Your task to perform on an android device: turn on the 12-hour format for clock Image 0: 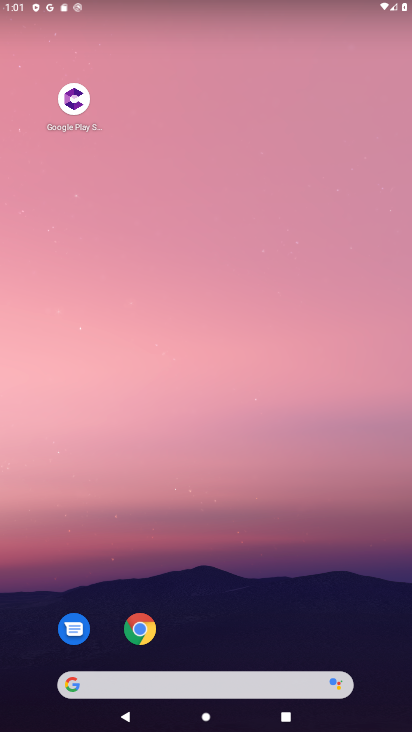
Step 0: drag from (253, 674) to (209, 192)
Your task to perform on an android device: turn on the 12-hour format for clock Image 1: 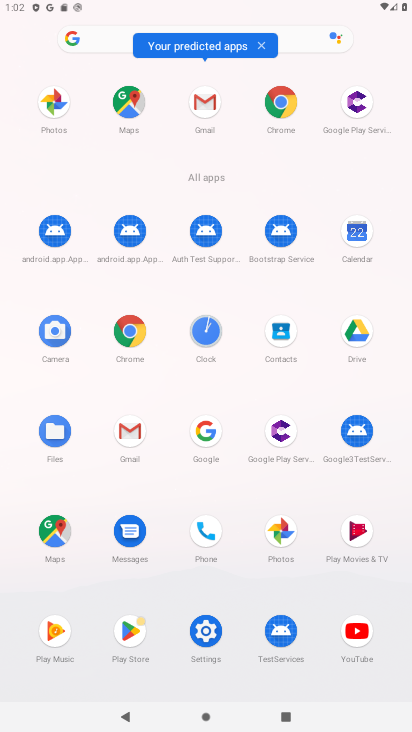
Step 1: click (202, 335)
Your task to perform on an android device: turn on the 12-hour format for clock Image 2: 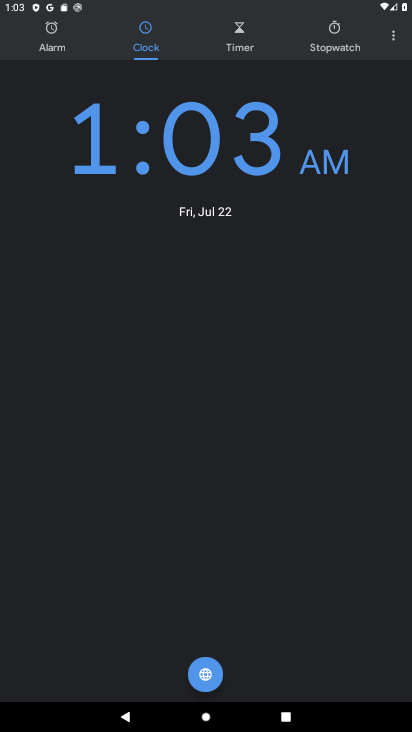
Step 2: click (397, 33)
Your task to perform on an android device: turn on the 12-hour format for clock Image 3: 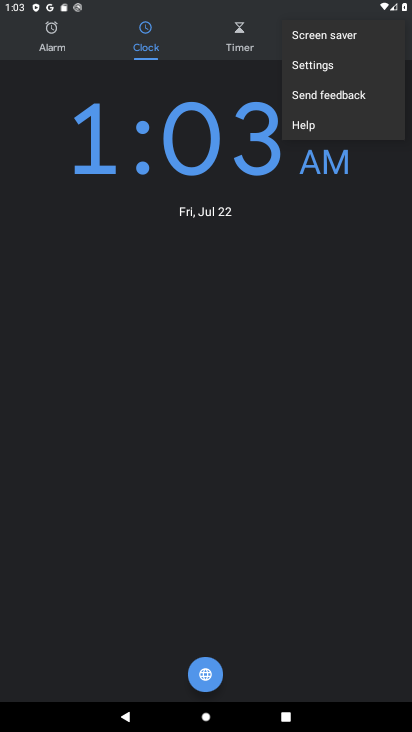
Step 3: click (323, 68)
Your task to perform on an android device: turn on the 12-hour format for clock Image 4: 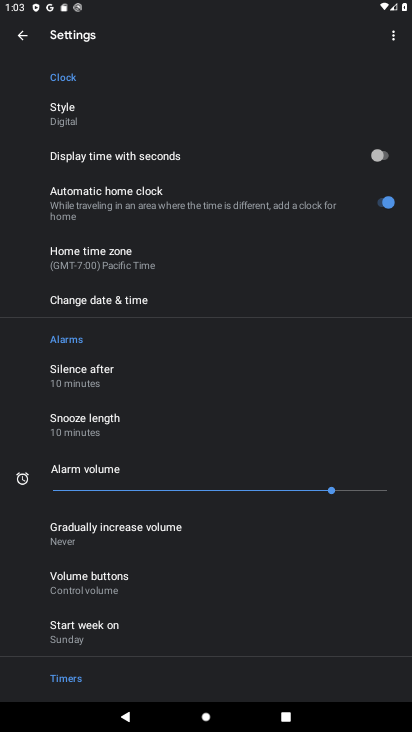
Step 4: click (109, 301)
Your task to perform on an android device: turn on the 12-hour format for clock Image 5: 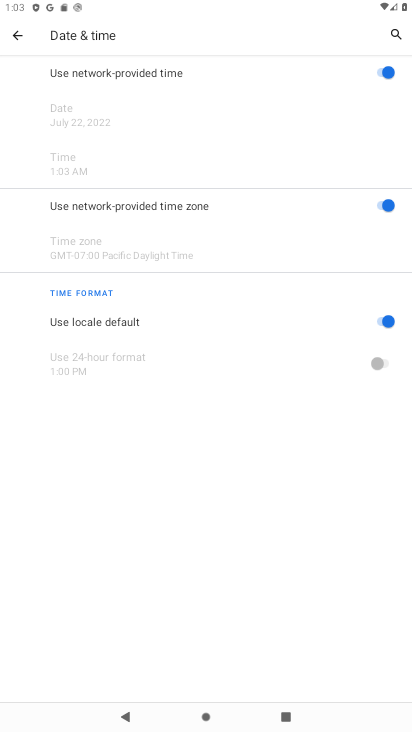
Step 5: task complete